Your task to perform on an android device: toggle notifications settings in the gmail app Image 0: 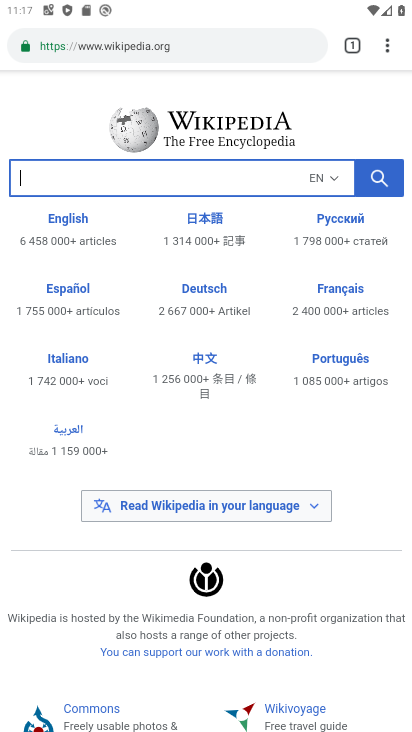
Step 0: press home button
Your task to perform on an android device: toggle notifications settings in the gmail app Image 1: 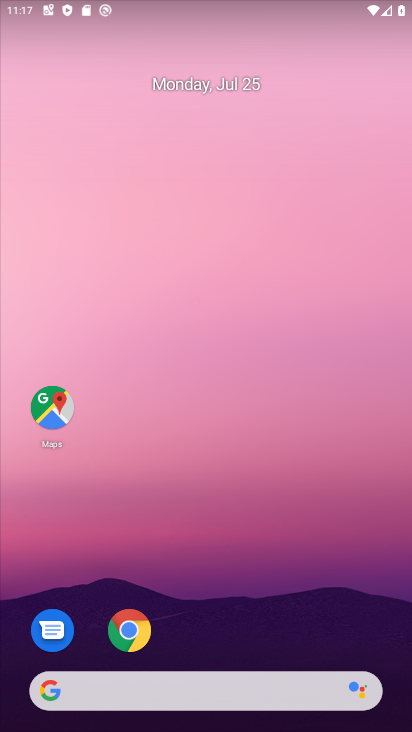
Step 1: drag from (248, 644) to (261, 9)
Your task to perform on an android device: toggle notifications settings in the gmail app Image 2: 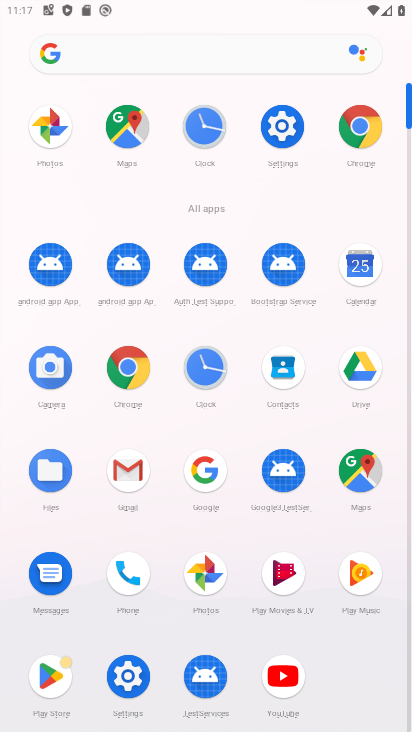
Step 2: click (125, 480)
Your task to perform on an android device: toggle notifications settings in the gmail app Image 3: 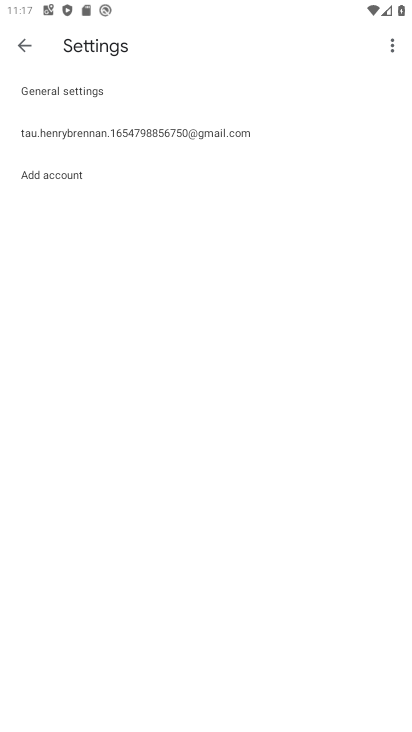
Step 3: click (64, 129)
Your task to perform on an android device: toggle notifications settings in the gmail app Image 4: 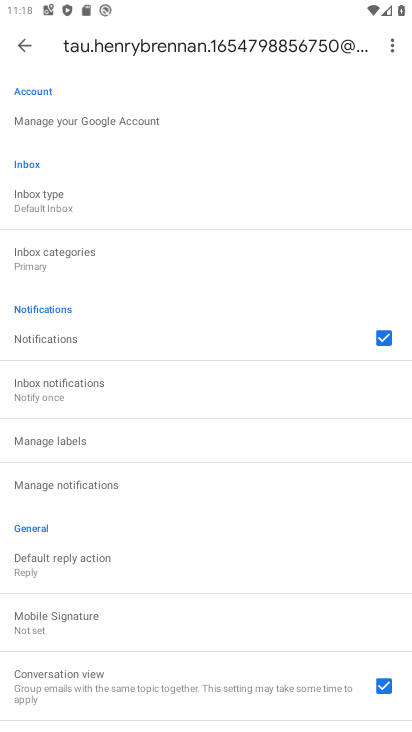
Step 4: click (57, 475)
Your task to perform on an android device: toggle notifications settings in the gmail app Image 5: 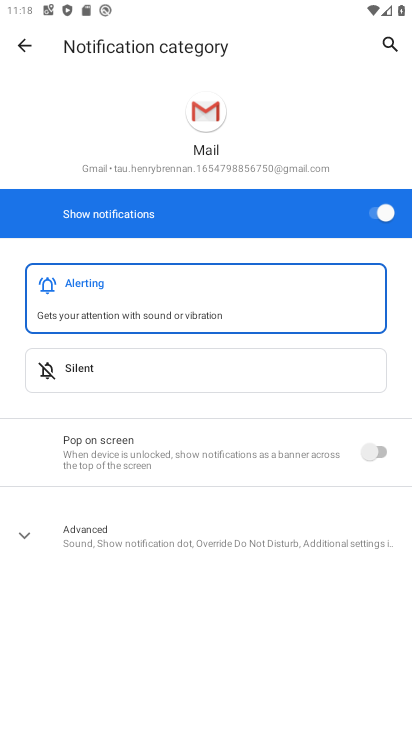
Step 5: click (383, 198)
Your task to perform on an android device: toggle notifications settings in the gmail app Image 6: 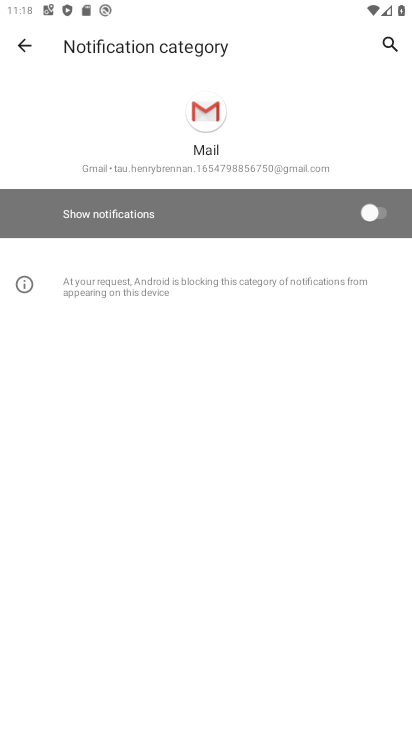
Step 6: task complete